Your task to perform on an android device: Open settings Image 0: 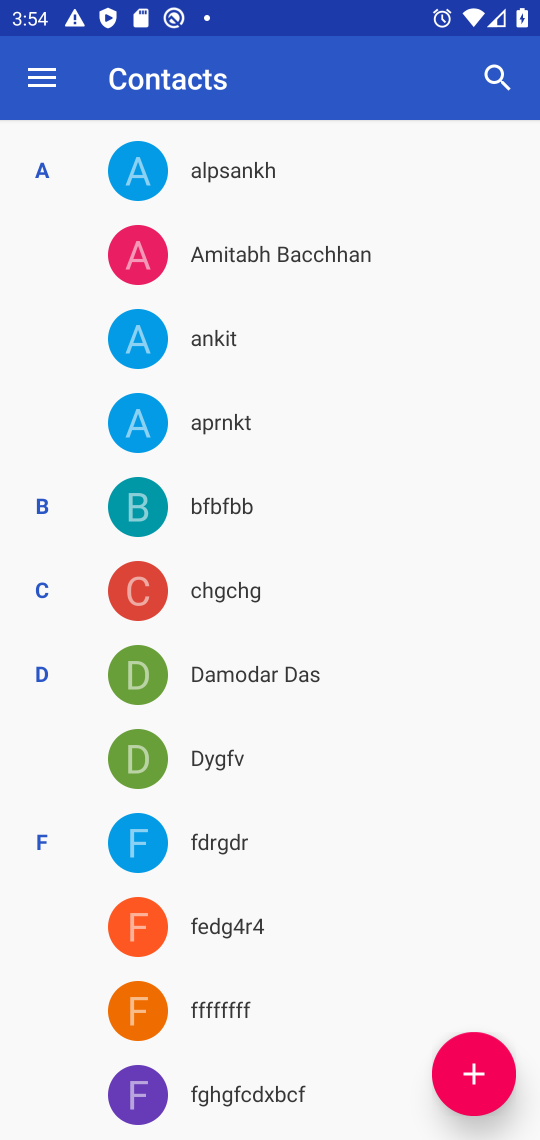
Step 0: press home button
Your task to perform on an android device: Open settings Image 1: 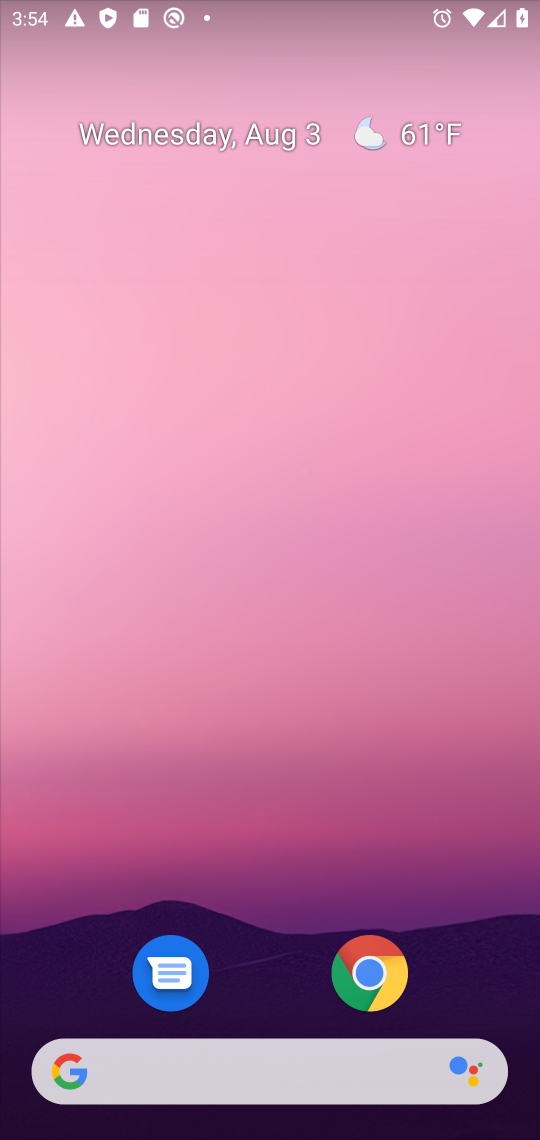
Step 1: drag from (256, 894) to (298, 89)
Your task to perform on an android device: Open settings Image 2: 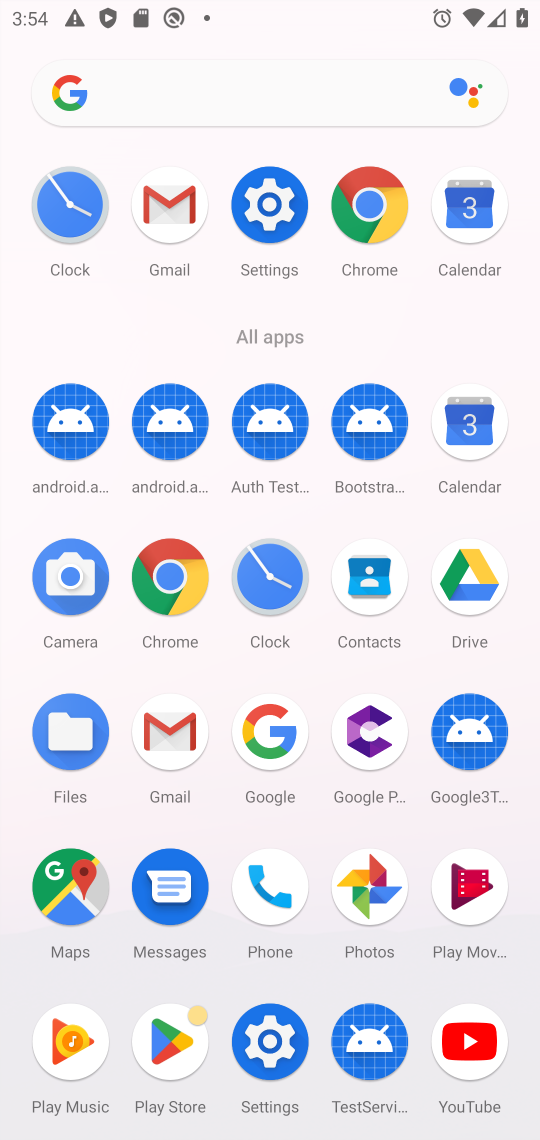
Step 2: click (288, 192)
Your task to perform on an android device: Open settings Image 3: 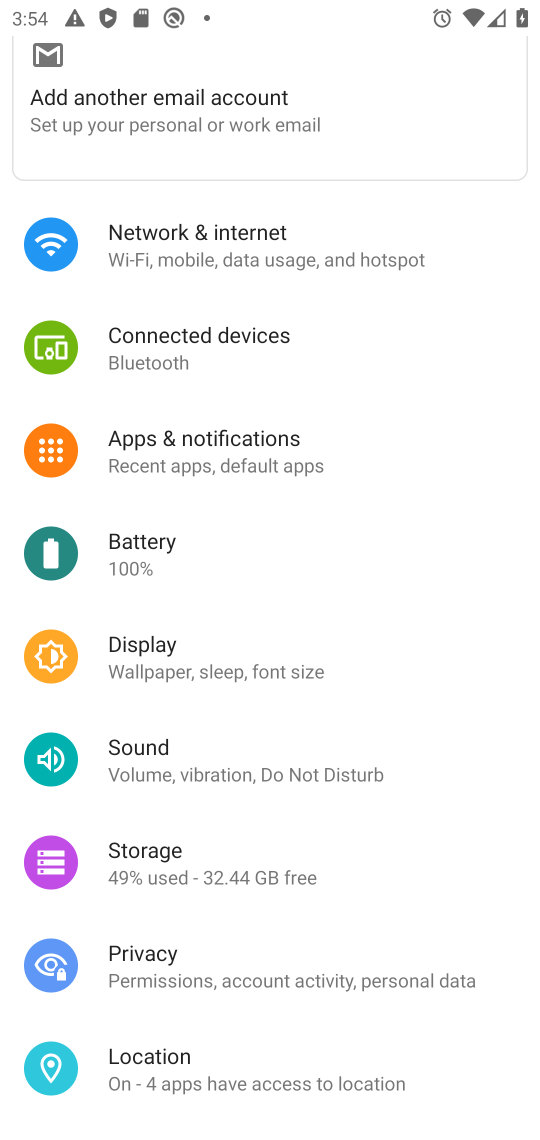
Step 3: task complete